Your task to perform on an android device: open chrome and create a bookmark for the current page Image 0: 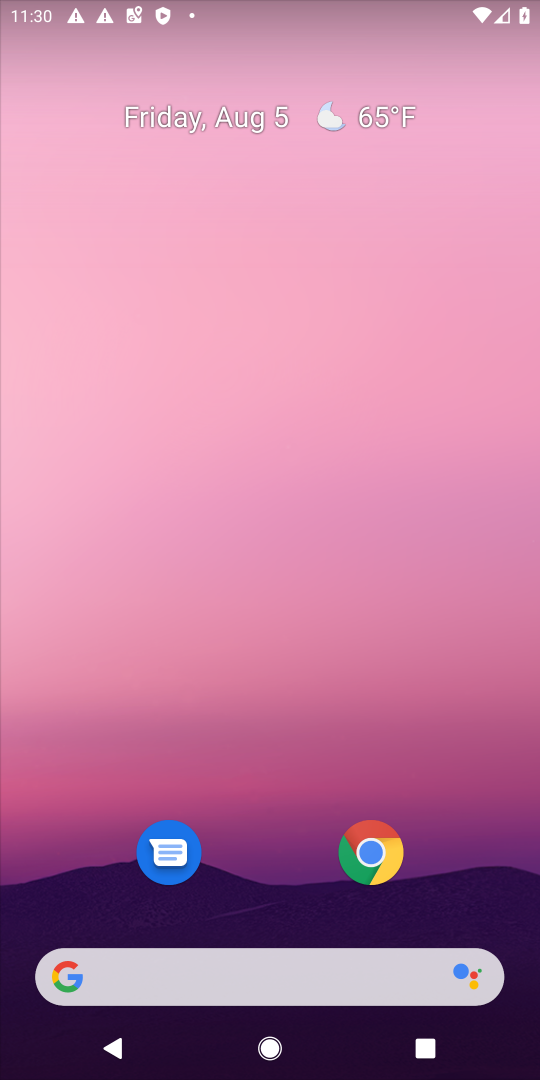
Step 0: drag from (356, 995) to (240, 215)
Your task to perform on an android device: open chrome and create a bookmark for the current page Image 1: 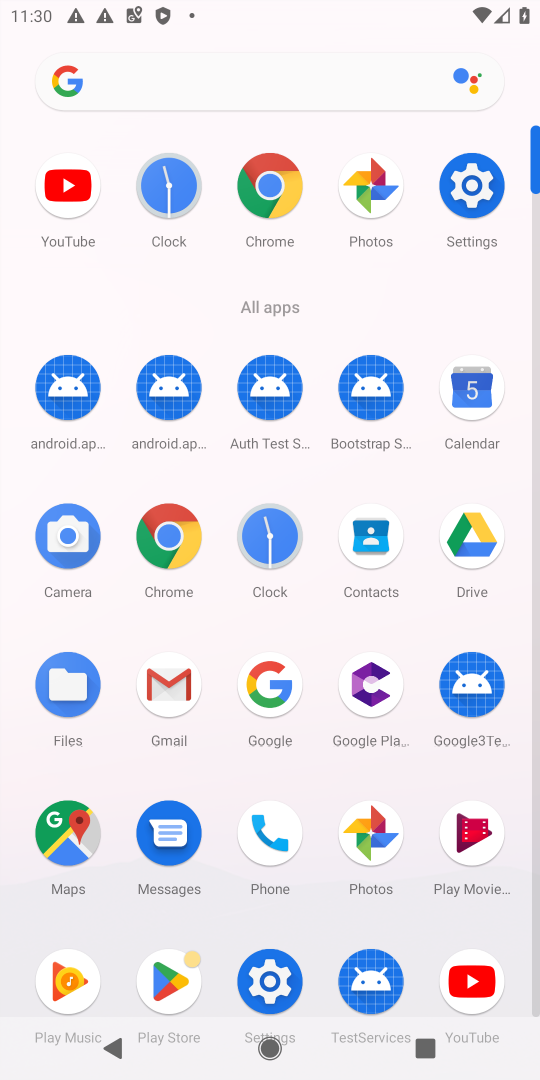
Step 1: click (265, 179)
Your task to perform on an android device: open chrome and create a bookmark for the current page Image 2: 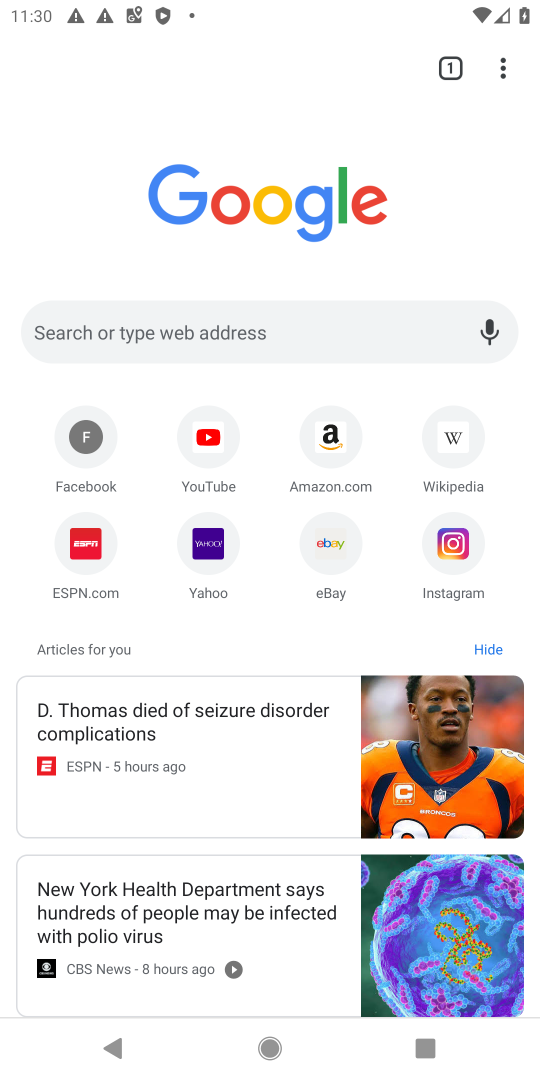
Step 2: click (503, 78)
Your task to perform on an android device: open chrome and create a bookmark for the current page Image 3: 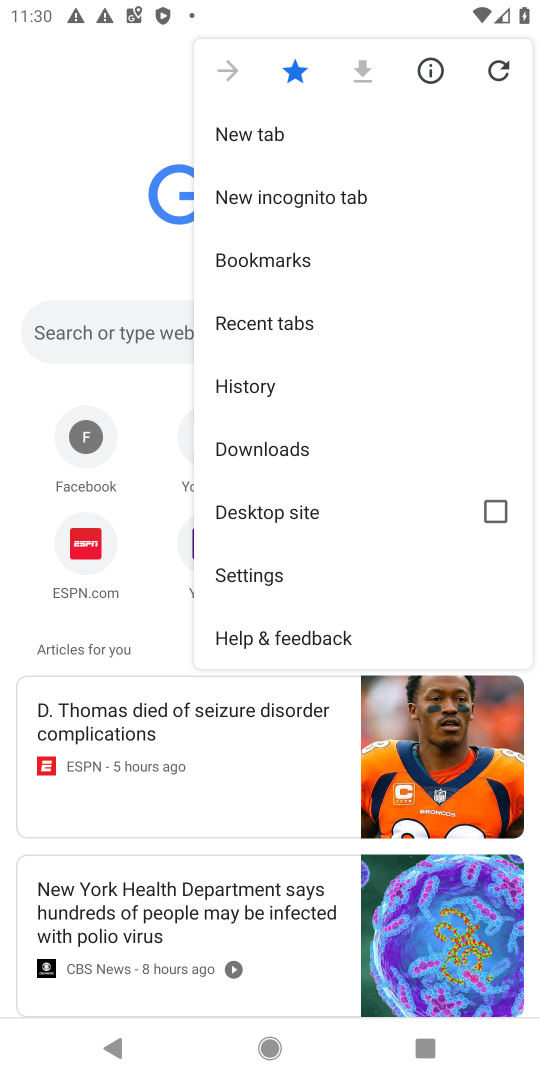
Step 3: click (286, 273)
Your task to perform on an android device: open chrome and create a bookmark for the current page Image 4: 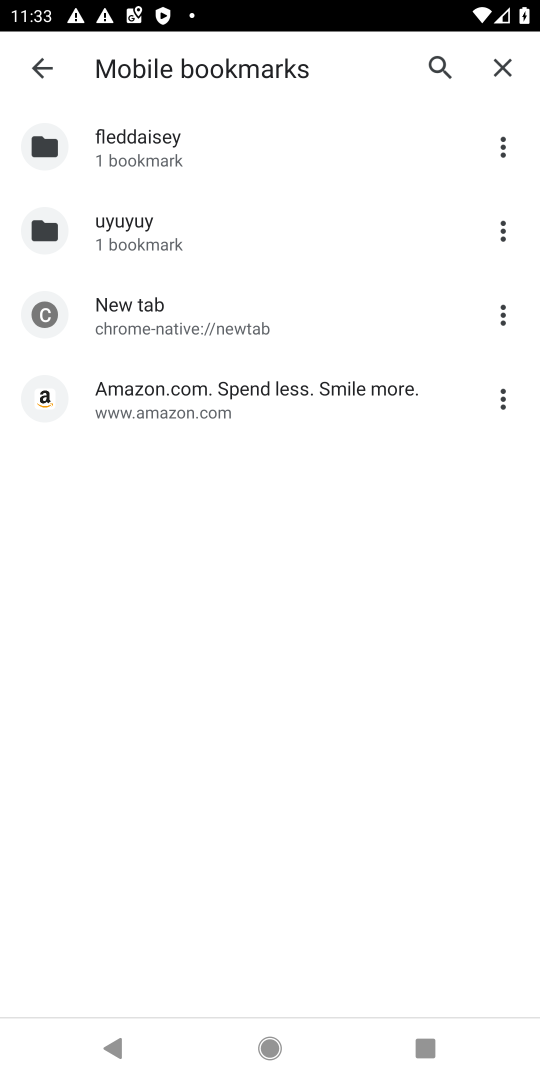
Step 4: task complete